Your task to perform on an android device: turn on showing notifications on the lock screen Image 0: 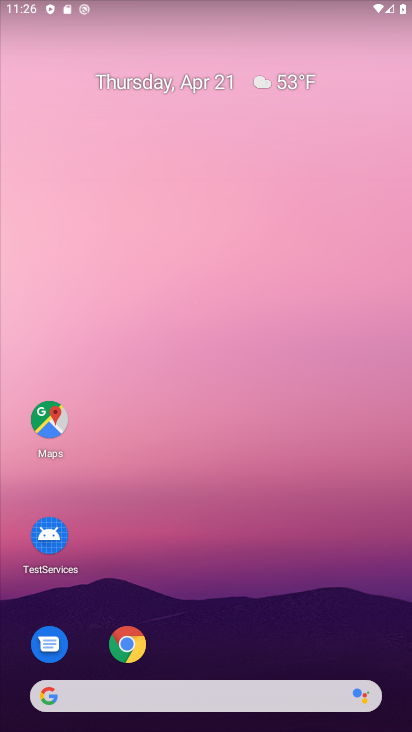
Step 0: drag from (343, 602) to (310, 163)
Your task to perform on an android device: turn on showing notifications on the lock screen Image 1: 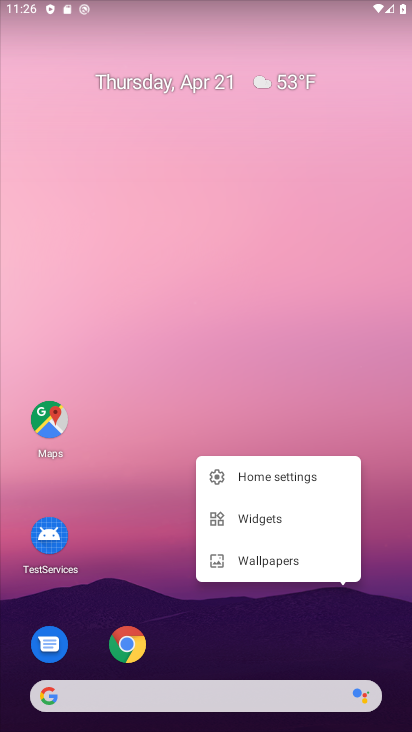
Step 1: click (392, 605)
Your task to perform on an android device: turn on showing notifications on the lock screen Image 2: 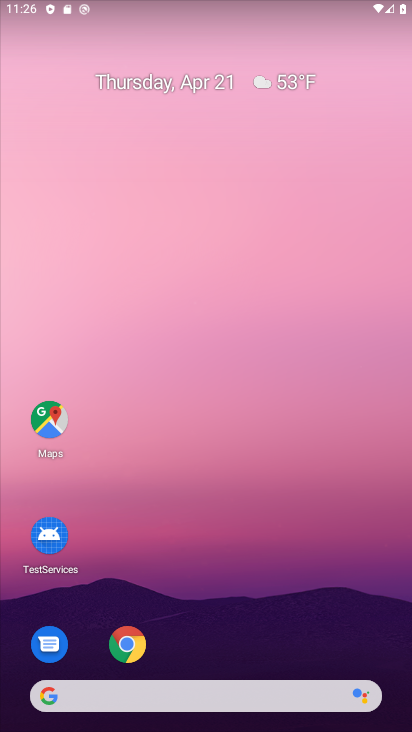
Step 2: drag from (270, 548) to (286, 124)
Your task to perform on an android device: turn on showing notifications on the lock screen Image 3: 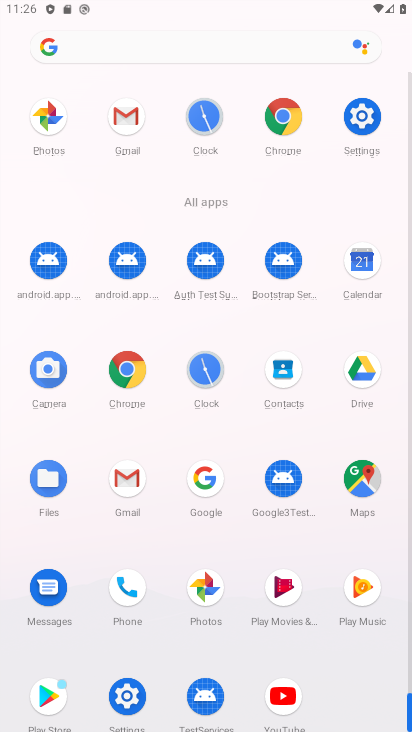
Step 3: click (360, 108)
Your task to perform on an android device: turn on showing notifications on the lock screen Image 4: 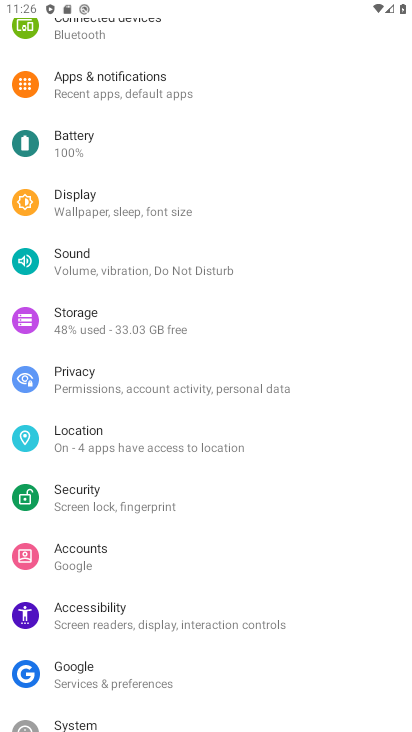
Step 4: click (148, 93)
Your task to perform on an android device: turn on showing notifications on the lock screen Image 5: 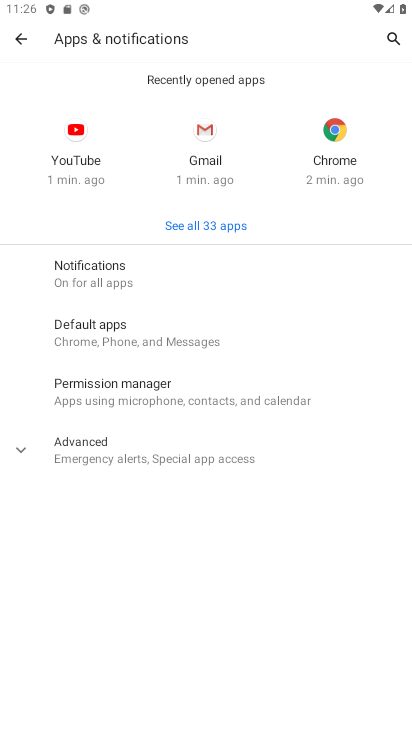
Step 5: click (155, 276)
Your task to perform on an android device: turn on showing notifications on the lock screen Image 6: 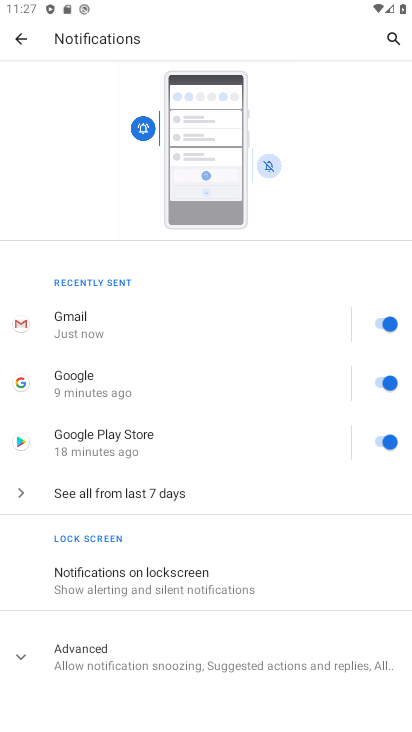
Step 6: click (101, 577)
Your task to perform on an android device: turn on showing notifications on the lock screen Image 7: 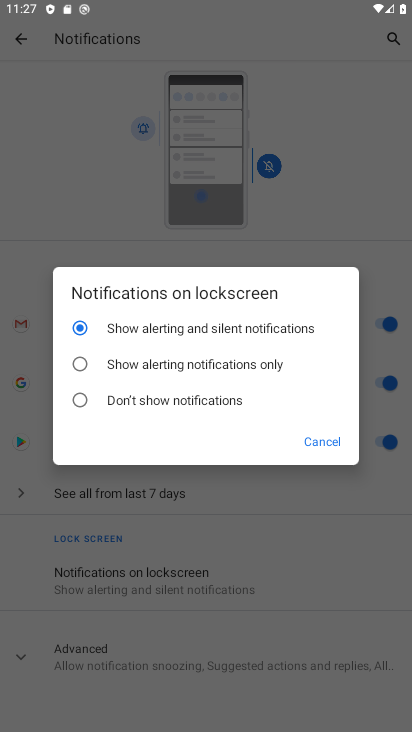
Step 7: click (178, 371)
Your task to perform on an android device: turn on showing notifications on the lock screen Image 8: 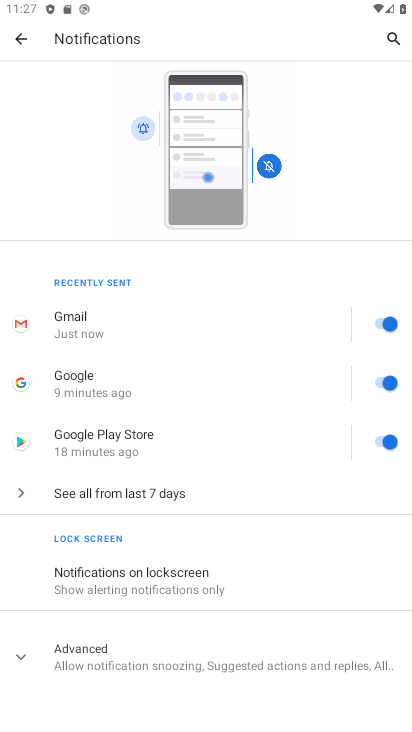
Step 8: task complete